Your task to perform on an android device: Go to Yahoo.com Image 0: 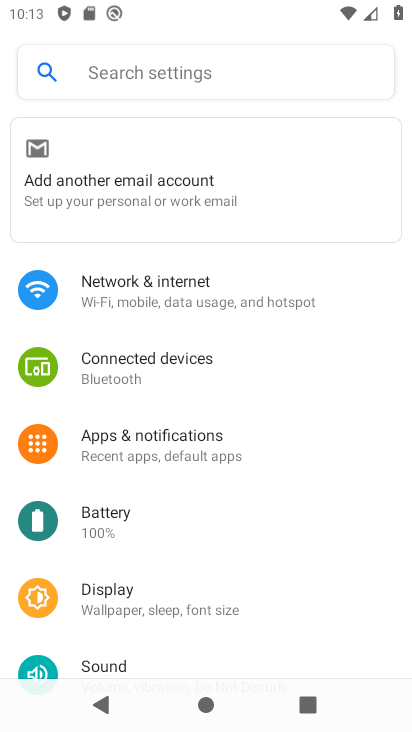
Step 0: press home button
Your task to perform on an android device: Go to Yahoo.com Image 1: 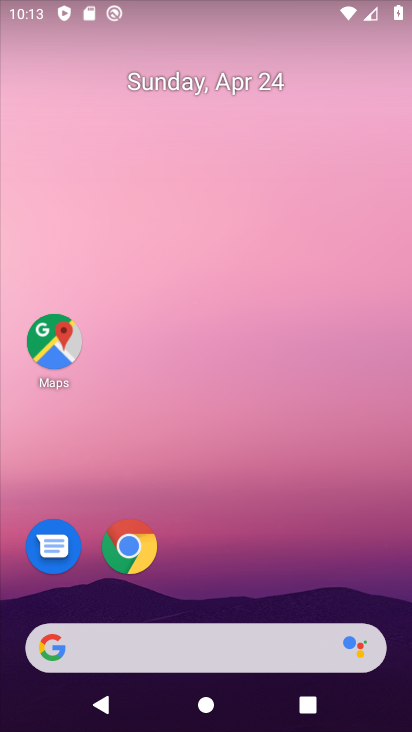
Step 1: click (118, 533)
Your task to perform on an android device: Go to Yahoo.com Image 2: 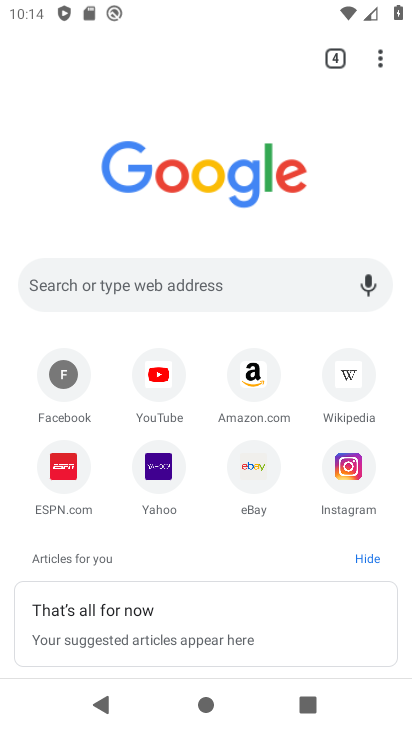
Step 2: click (168, 473)
Your task to perform on an android device: Go to Yahoo.com Image 3: 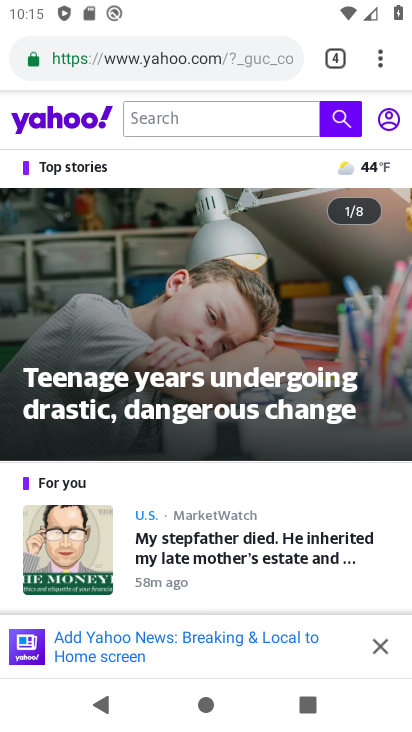
Step 3: task complete